Your task to perform on an android device: Is it going to rain tomorrow? Image 0: 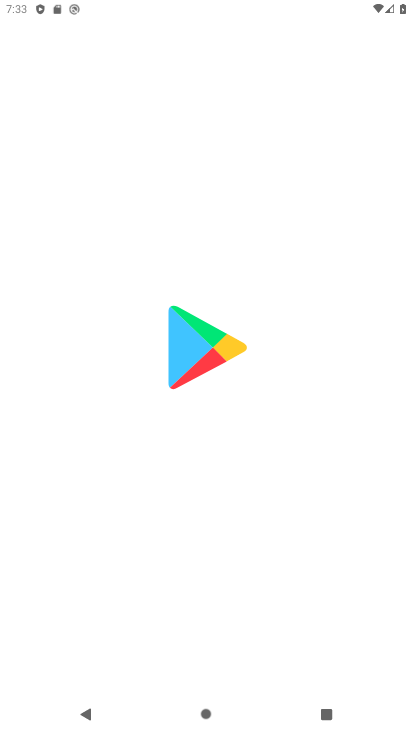
Step 0: drag from (209, 509) to (205, 204)
Your task to perform on an android device: Is it going to rain tomorrow? Image 1: 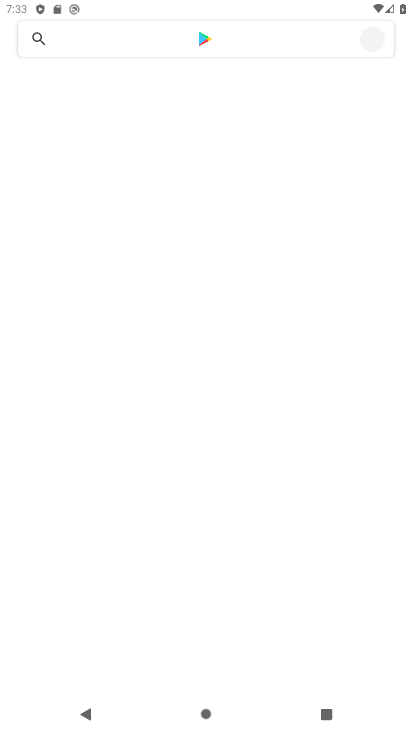
Step 1: press home button
Your task to perform on an android device: Is it going to rain tomorrow? Image 2: 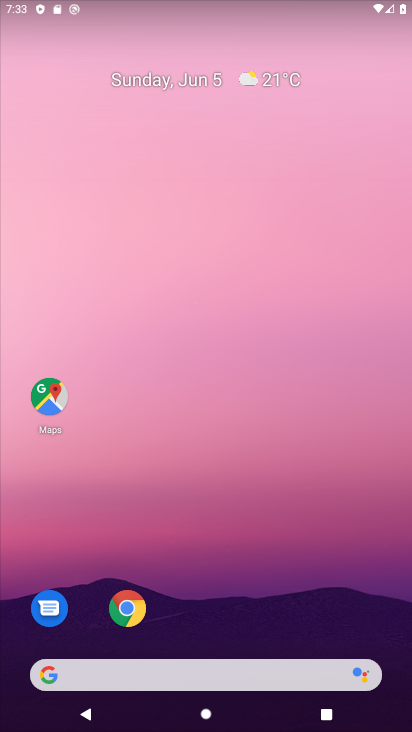
Step 2: drag from (237, 605) to (239, 191)
Your task to perform on an android device: Is it going to rain tomorrow? Image 3: 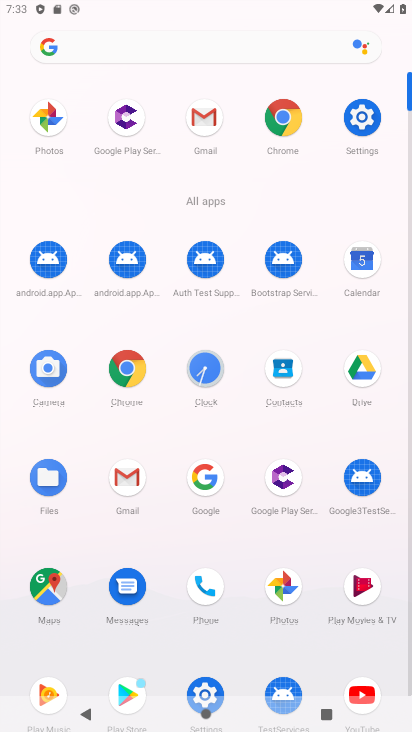
Step 3: click (115, 361)
Your task to perform on an android device: Is it going to rain tomorrow? Image 4: 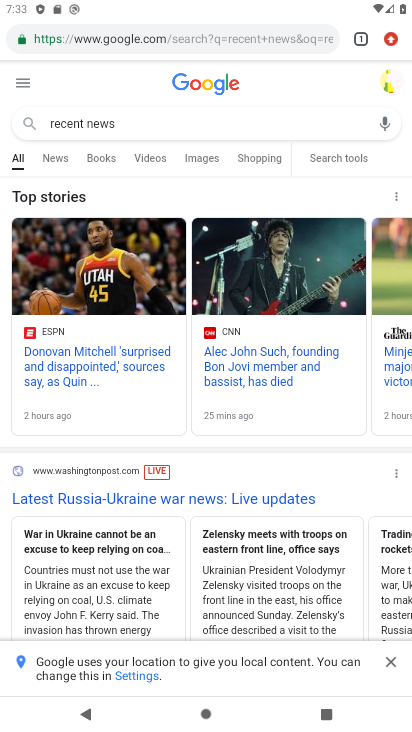
Step 4: click (158, 35)
Your task to perform on an android device: Is it going to rain tomorrow? Image 5: 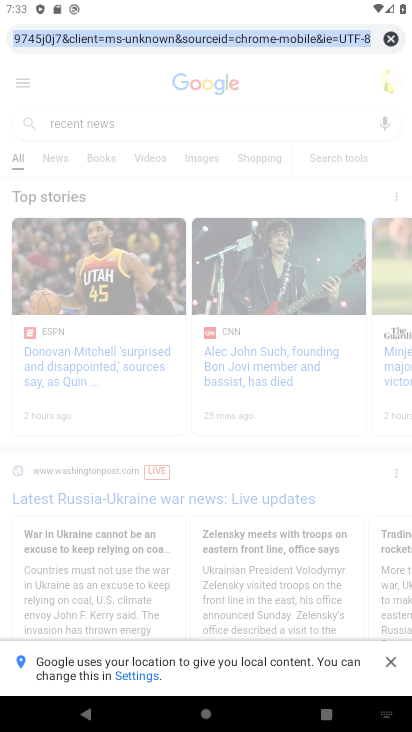
Step 5: click (381, 30)
Your task to perform on an android device: Is it going to rain tomorrow? Image 6: 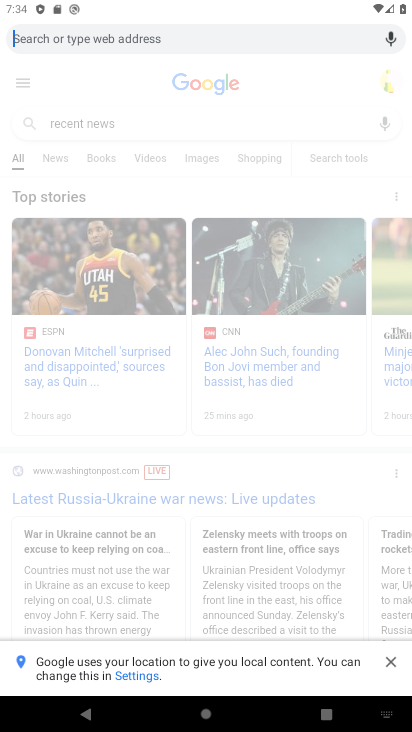
Step 6: type "is it going to rain tomorrow"
Your task to perform on an android device: Is it going to rain tomorrow? Image 7: 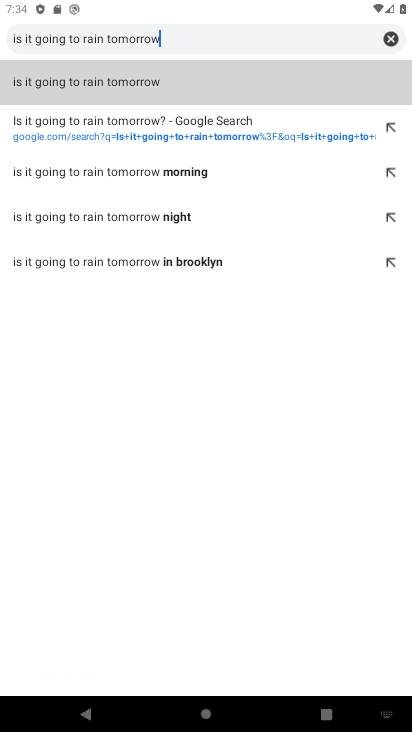
Step 7: click (185, 119)
Your task to perform on an android device: Is it going to rain tomorrow? Image 8: 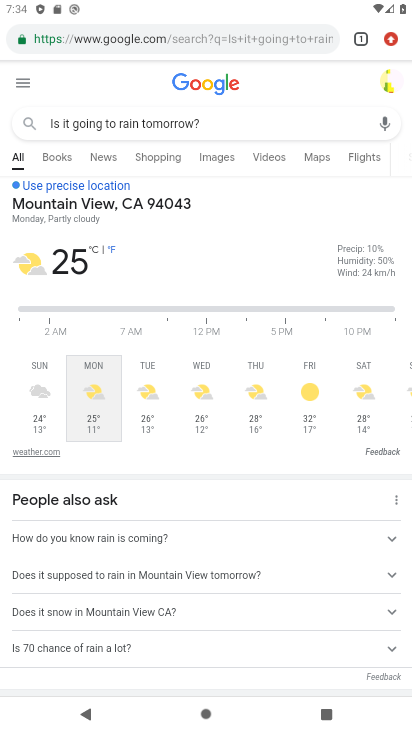
Step 8: task complete